Your task to perform on an android device: see sites visited before in the chrome app Image 0: 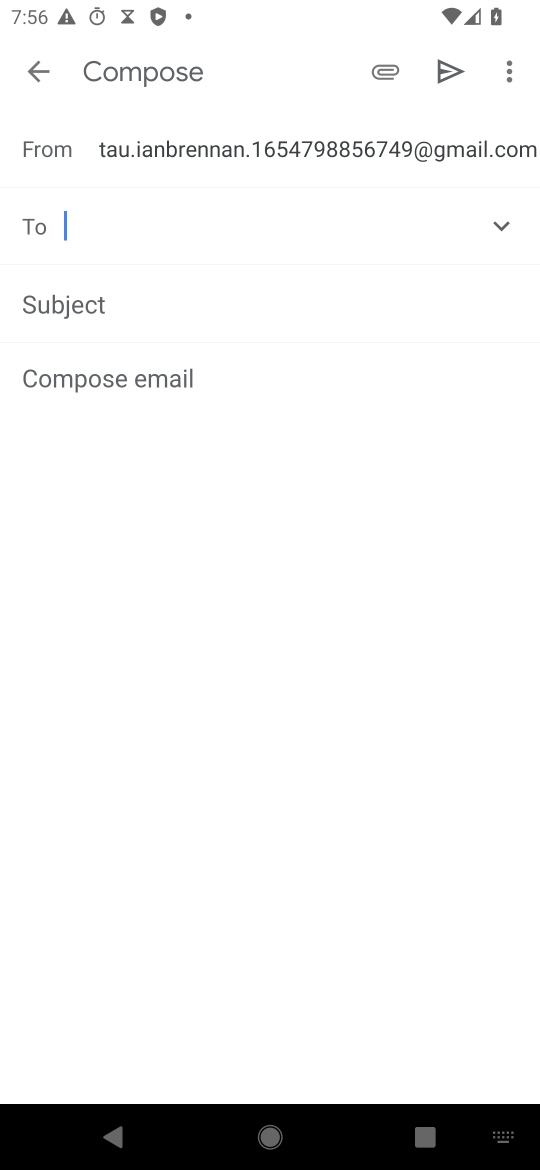
Step 0: press home button
Your task to perform on an android device: see sites visited before in the chrome app Image 1: 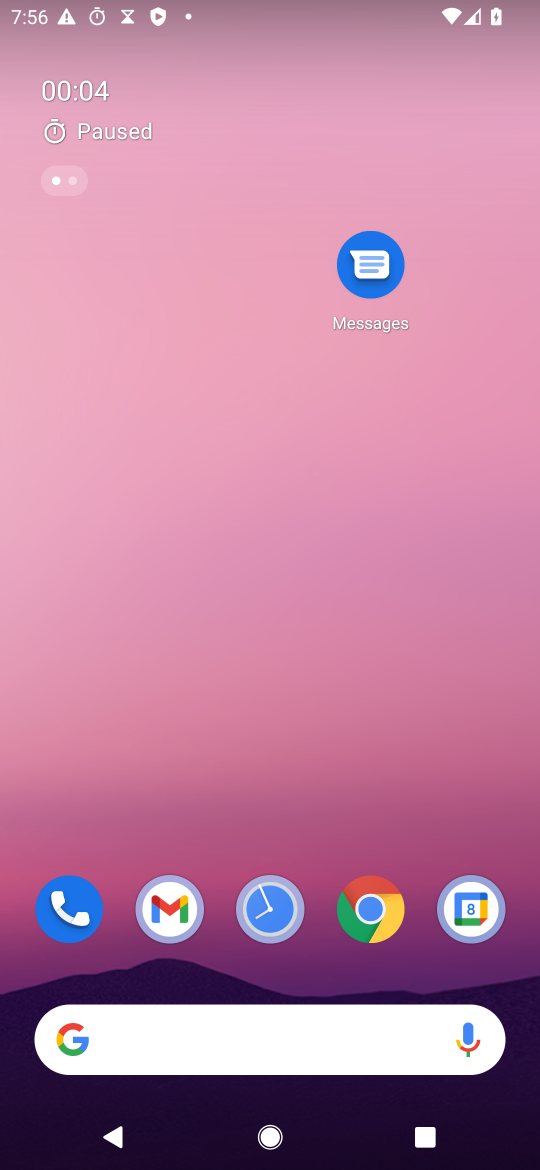
Step 1: click (382, 902)
Your task to perform on an android device: see sites visited before in the chrome app Image 2: 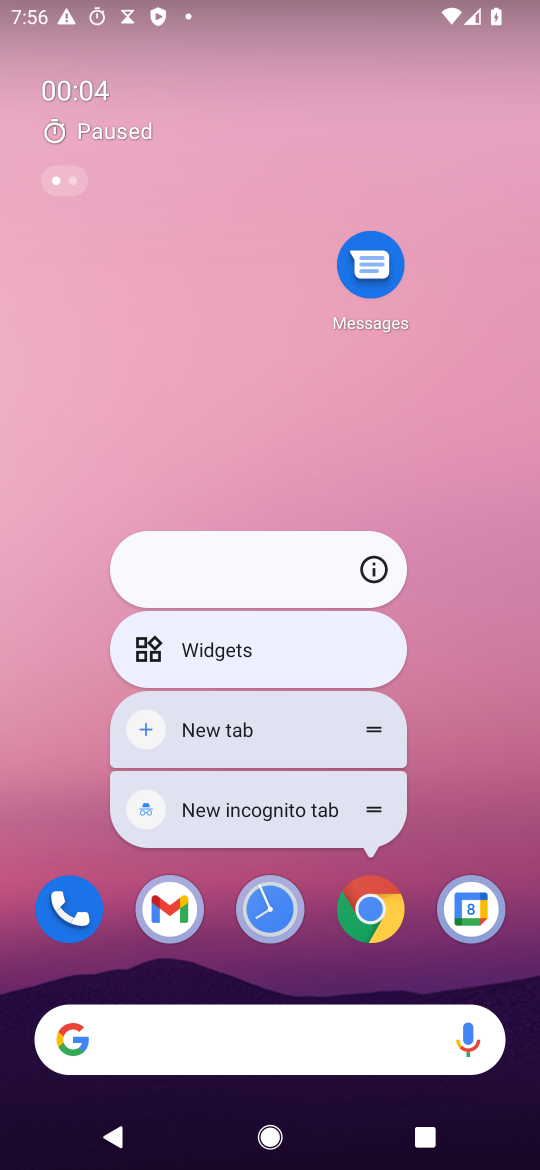
Step 2: click (375, 910)
Your task to perform on an android device: see sites visited before in the chrome app Image 3: 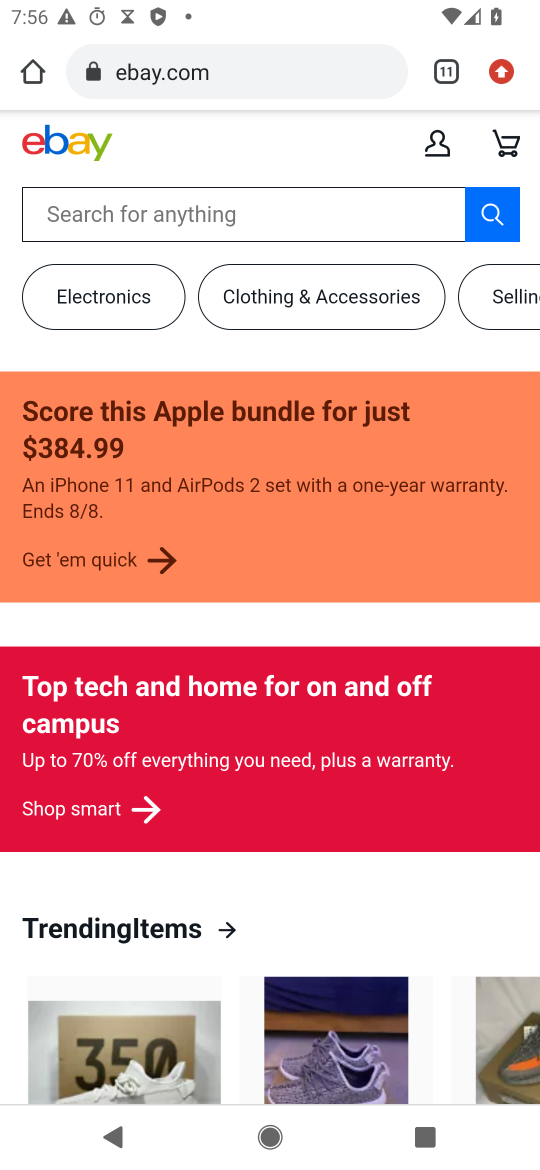
Step 3: task complete